Your task to perform on an android device: Open wifi settings Image 0: 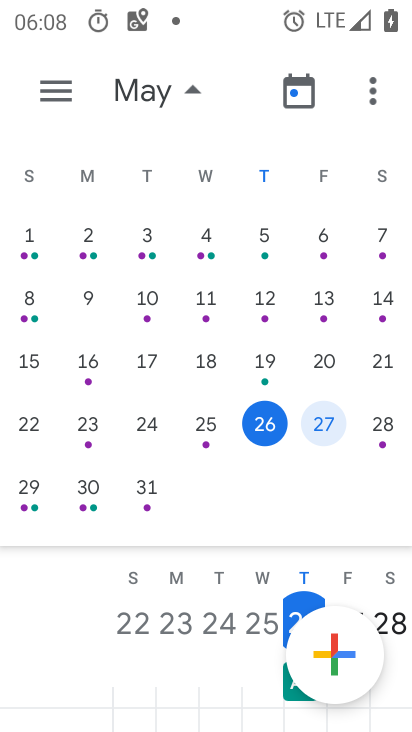
Step 0: press home button
Your task to perform on an android device: Open wifi settings Image 1: 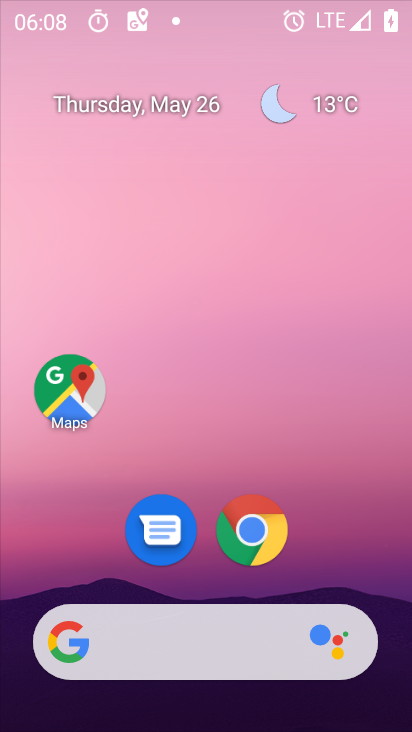
Step 1: drag from (294, 648) to (346, 46)
Your task to perform on an android device: Open wifi settings Image 2: 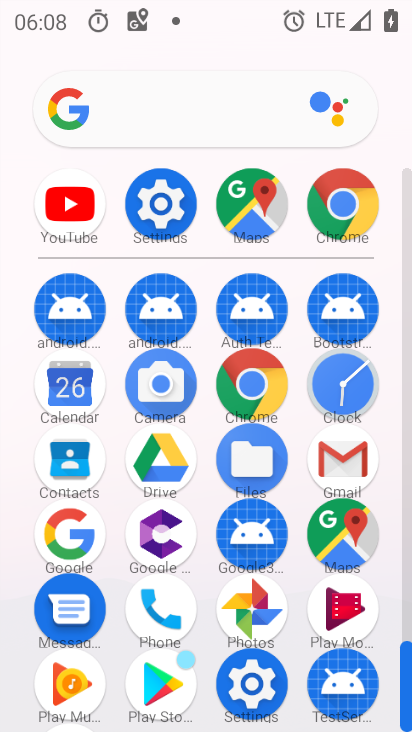
Step 2: click (175, 189)
Your task to perform on an android device: Open wifi settings Image 3: 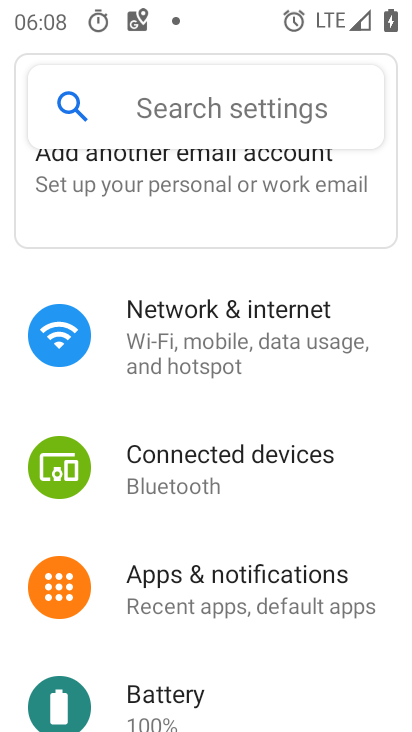
Step 3: click (286, 338)
Your task to perform on an android device: Open wifi settings Image 4: 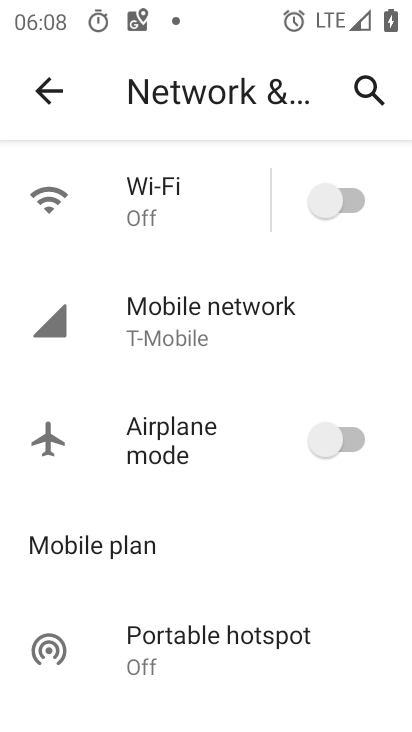
Step 4: click (192, 182)
Your task to perform on an android device: Open wifi settings Image 5: 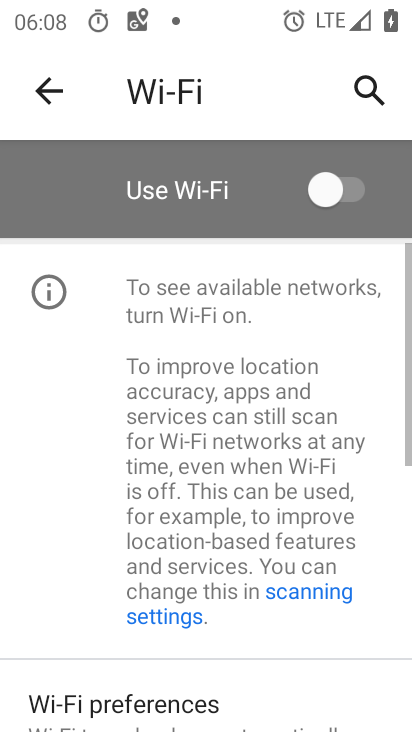
Step 5: task complete